Your task to perform on an android device: uninstall "Paramount+ | Peak Streaming" Image 0: 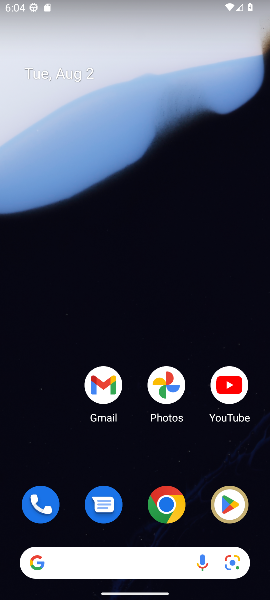
Step 0: click (232, 501)
Your task to perform on an android device: uninstall "Paramount+ | Peak Streaming" Image 1: 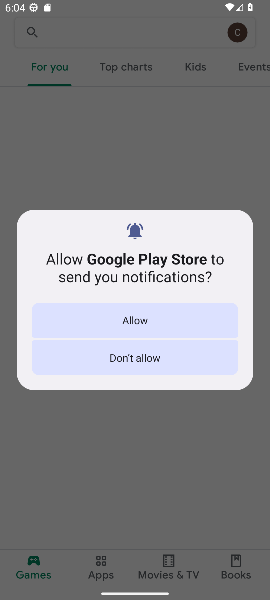
Step 1: click (158, 319)
Your task to perform on an android device: uninstall "Paramount+ | Peak Streaming" Image 2: 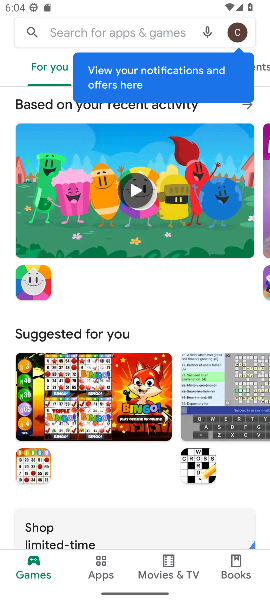
Step 2: click (115, 26)
Your task to perform on an android device: uninstall "Paramount+ | Peak Streaming" Image 3: 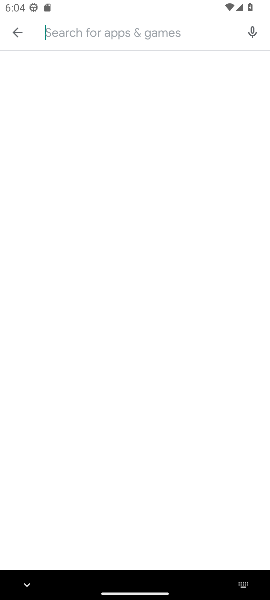
Step 3: type "paramount+"
Your task to perform on an android device: uninstall "Paramount+ | Peak Streaming" Image 4: 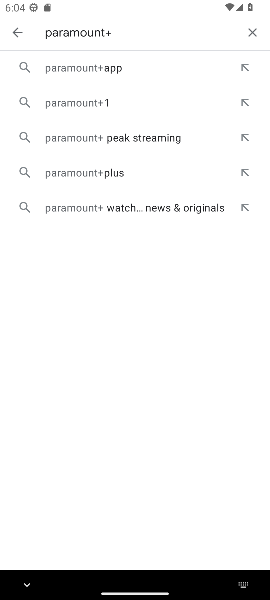
Step 4: click (113, 61)
Your task to perform on an android device: uninstall "Paramount+ | Peak Streaming" Image 5: 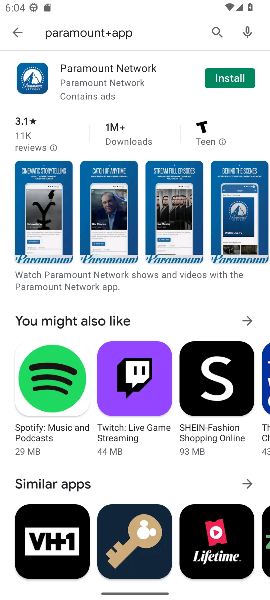
Step 5: drag from (199, 486) to (116, 271)
Your task to perform on an android device: uninstall "Paramount+ | Peak Streaming" Image 6: 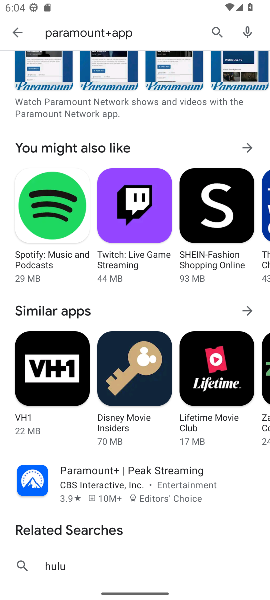
Step 6: click (194, 478)
Your task to perform on an android device: uninstall "Paramount+ | Peak Streaming" Image 7: 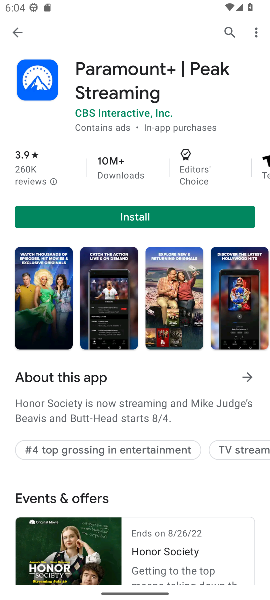
Step 7: task complete